Your task to perform on an android device: Go to notification settings Image 0: 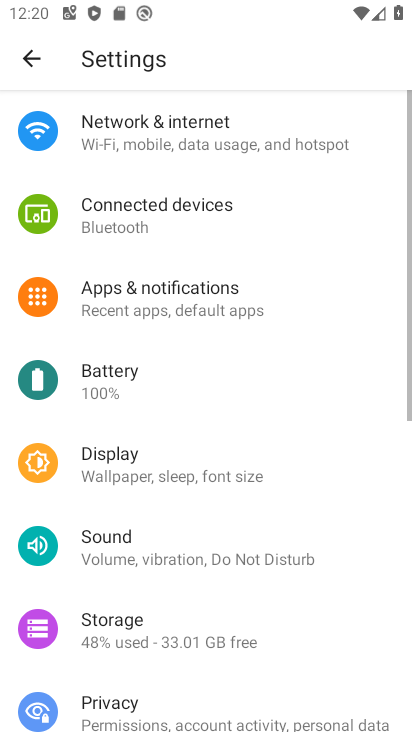
Step 0: click (189, 289)
Your task to perform on an android device: Go to notification settings Image 1: 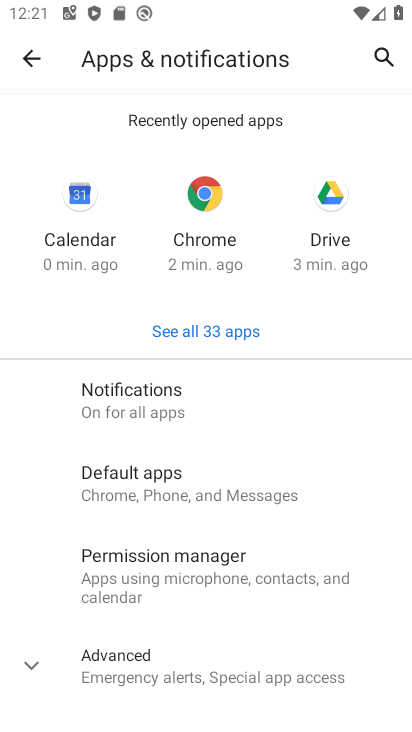
Step 1: click (200, 391)
Your task to perform on an android device: Go to notification settings Image 2: 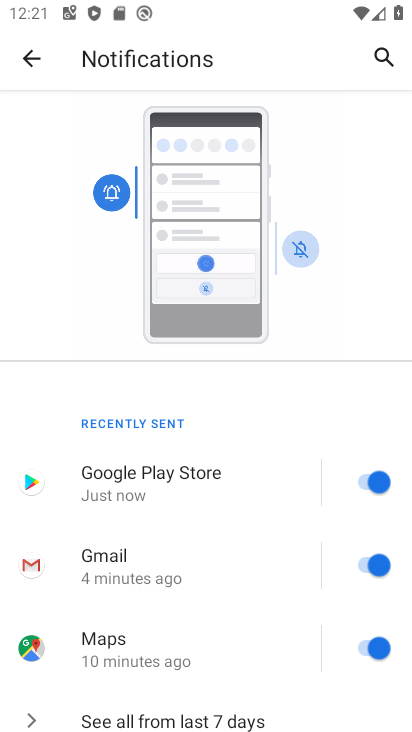
Step 2: task complete